Your task to perform on an android device: Go to Maps Image 0: 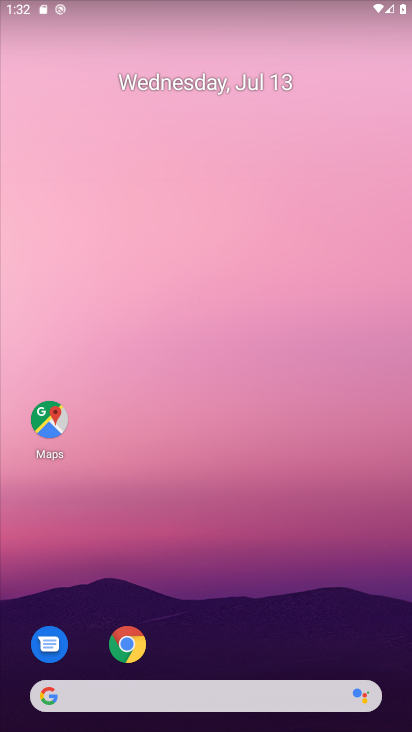
Step 0: drag from (207, 680) to (276, 138)
Your task to perform on an android device: Go to Maps Image 1: 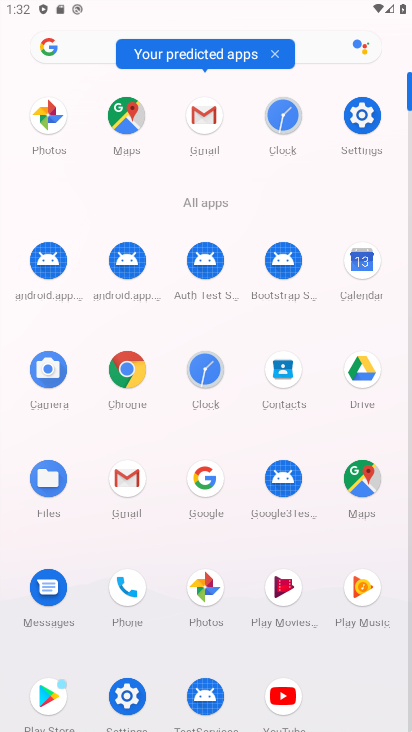
Step 1: click (365, 478)
Your task to perform on an android device: Go to Maps Image 2: 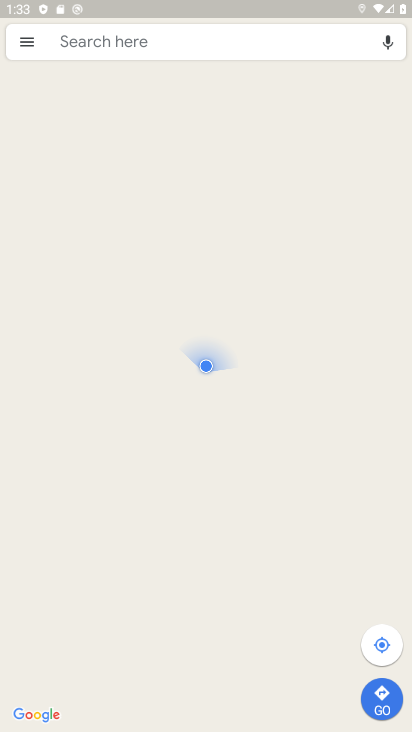
Step 2: task complete